Your task to perform on an android device: Open calendar and show me the fourth week of next month Image 0: 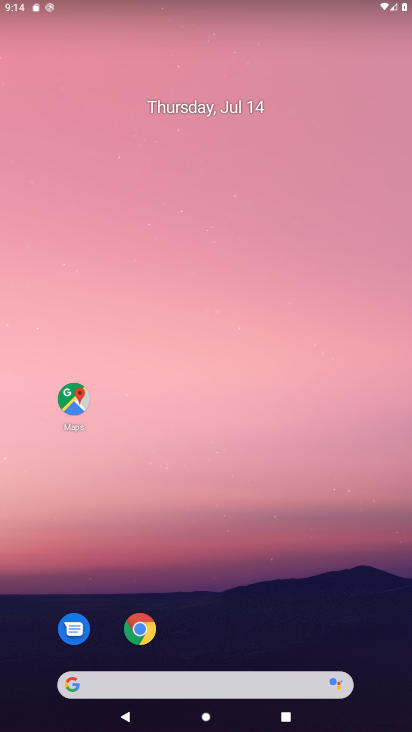
Step 0: drag from (260, 627) to (204, 79)
Your task to perform on an android device: Open calendar and show me the fourth week of next month Image 1: 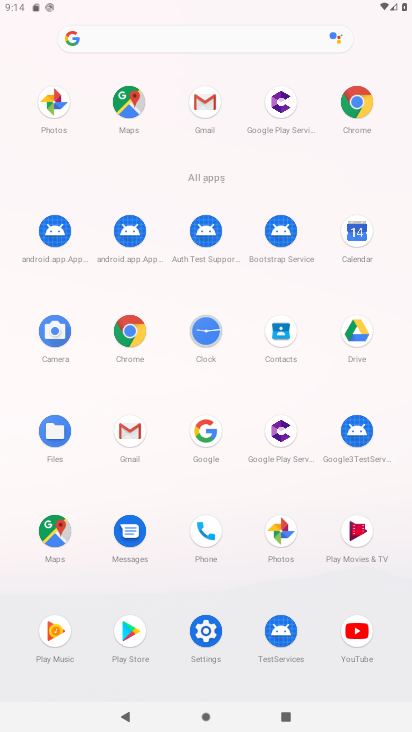
Step 1: click (358, 227)
Your task to perform on an android device: Open calendar and show me the fourth week of next month Image 2: 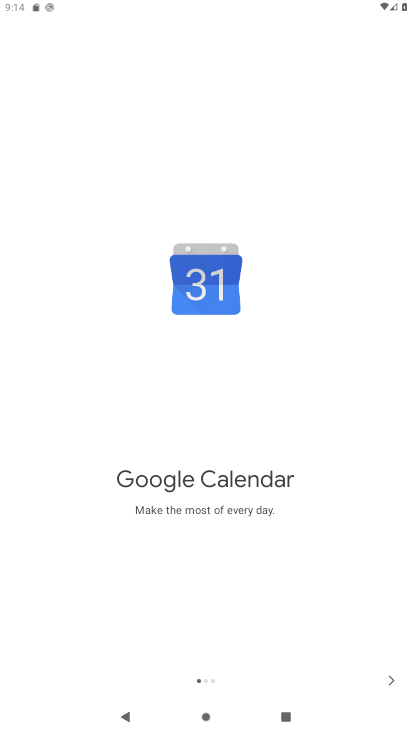
Step 2: click (391, 673)
Your task to perform on an android device: Open calendar and show me the fourth week of next month Image 3: 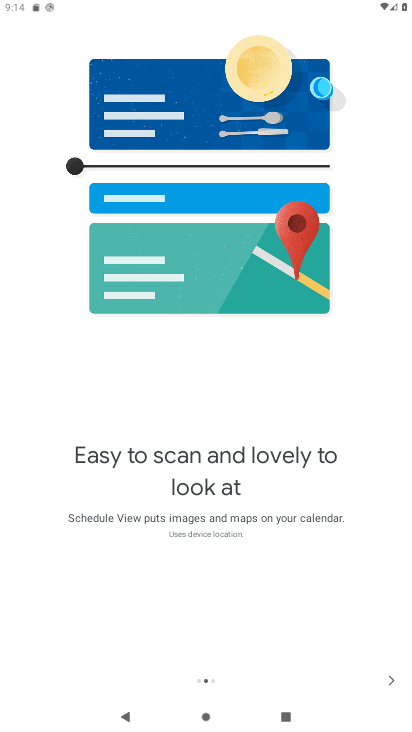
Step 3: click (391, 673)
Your task to perform on an android device: Open calendar and show me the fourth week of next month Image 4: 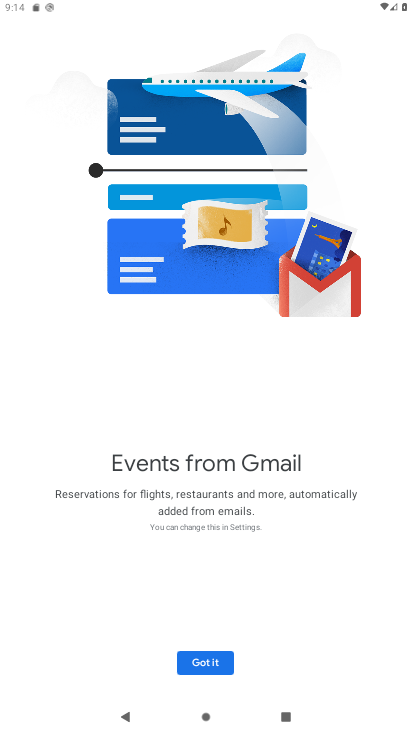
Step 4: click (224, 658)
Your task to perform on an android device: Open calendar and show me the fourth week of next month Image 5: 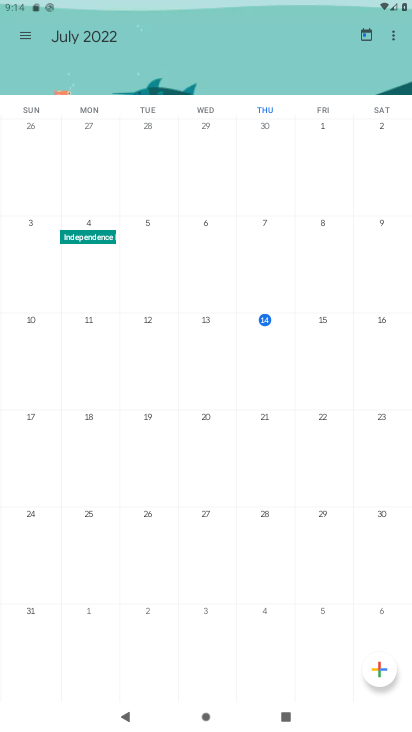
Step 5: drag from (352, 363) to (18, 384)
Your task to perform on an android device: Open calendar and show me the fourth week of next month Image 6: 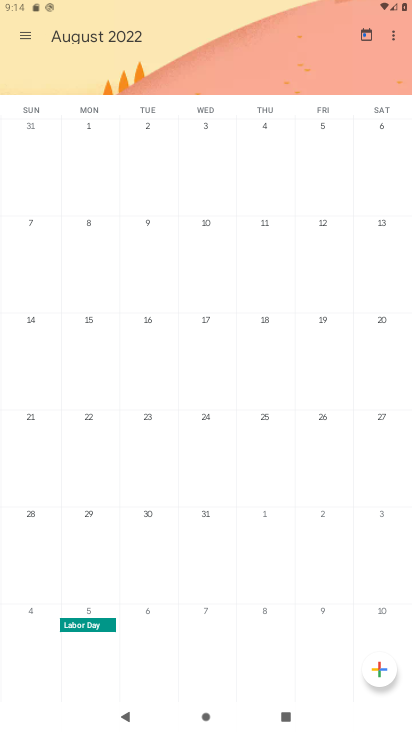
Step 6: click (24, 511)
Your task to perform on an android device: Open calendar and show me the fourth week of next month Image 7: 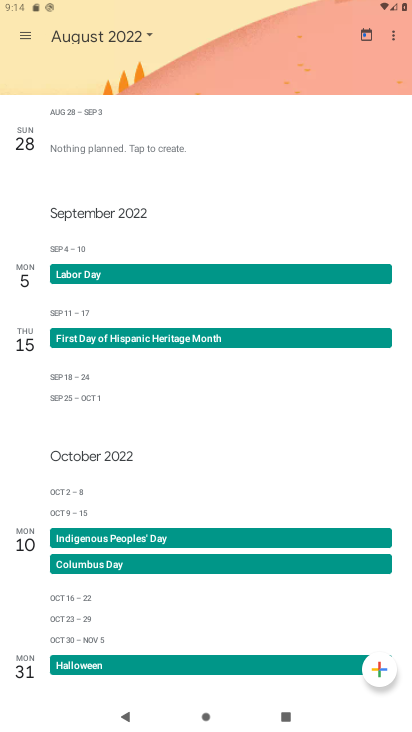
Step 7: task complete